Your task to perform on an android device: star an email in the gmail app Image 0: 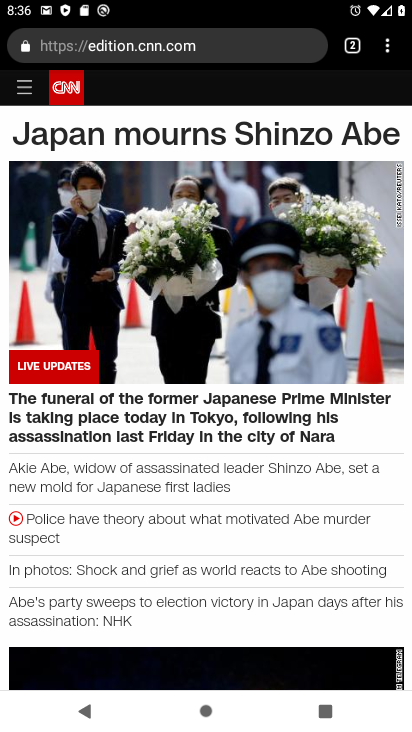
Step 0: press home button
Your task to perform on an android device: star an email in the gmail app Image 1: 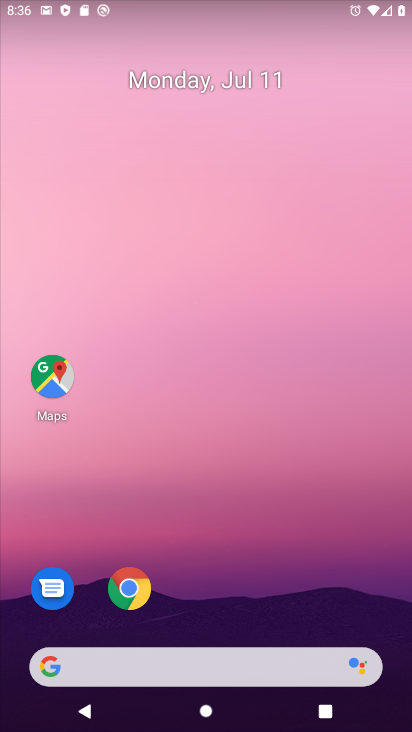
Step 1: drag from (124, 670) to (312, 145)
Your task to perform on an android device: star an email in the gmail app Image 2: 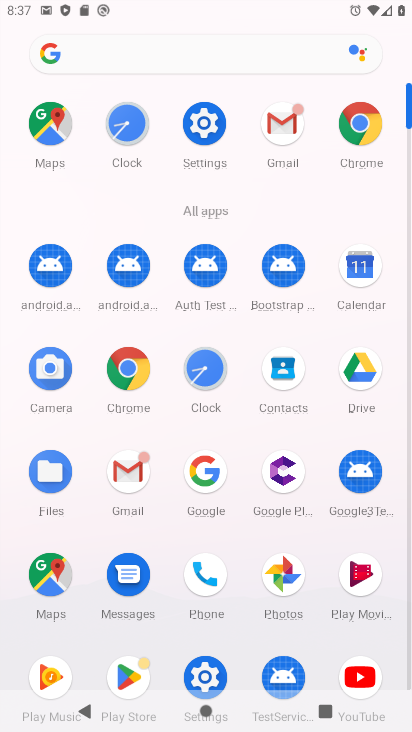
Step 2: click (285, 127)
Your task to perform on an android device: star an email in the gmail app Image 3: 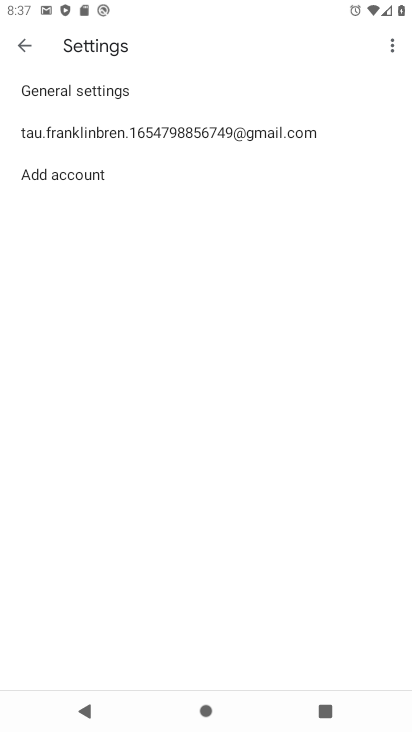
Step 3: click (32, 45)
Your task to perform on an android device: star an email in the gmail app Image 4: 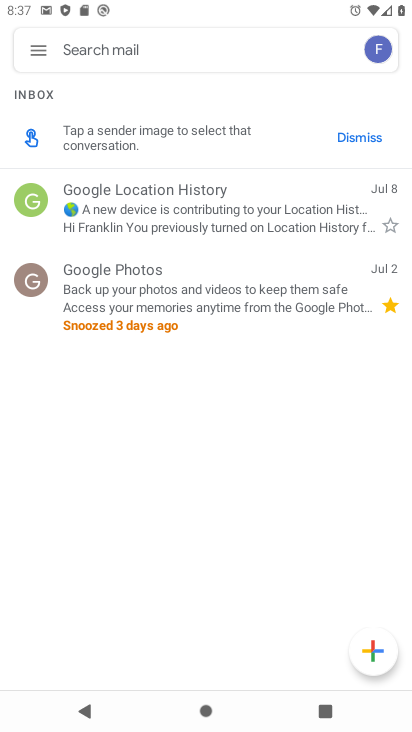
Step 4: click (390, 224)
Your task to perform on an android device: star an email in the gmail app Image 5: 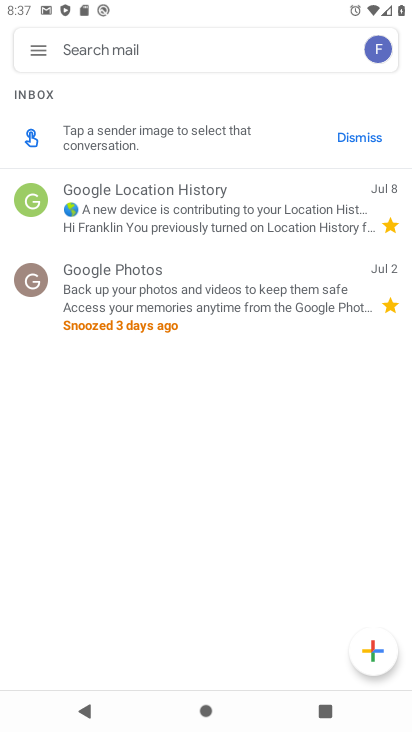
Step 5: task complete